Your task to perform on an android device: Go to CNN.com Image 0: 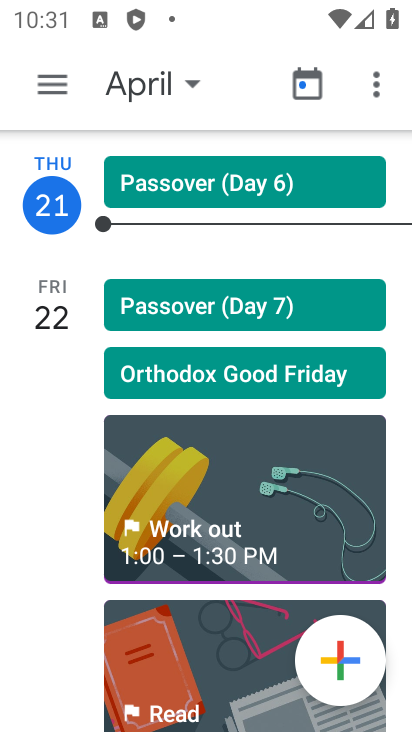
Step 0: press home button
Your task to perform on an android device: Go to CNN.com Image 1: 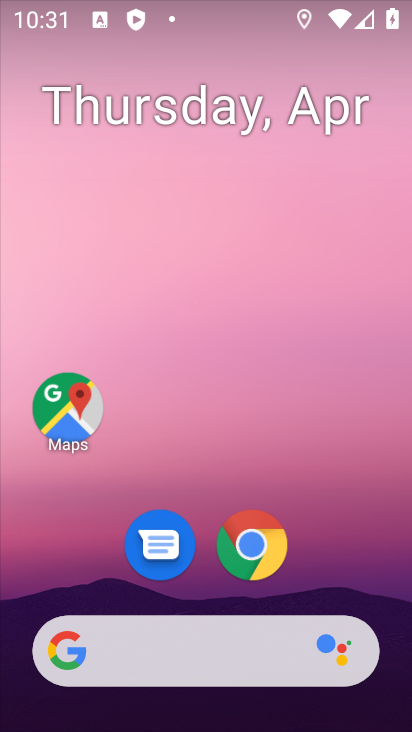
Step 1: click (230, 631)
Your task to perform on an android device: Go to CNN.com Image 2: 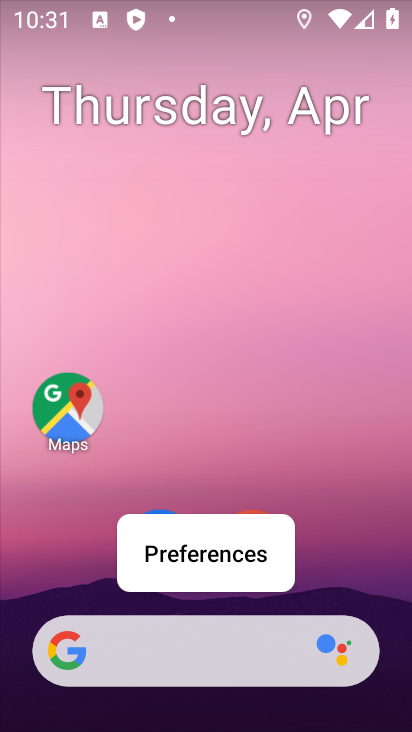
Step 2: click (197, 652)
Your task to perform on an android device: Go to CNN.com Image 3: 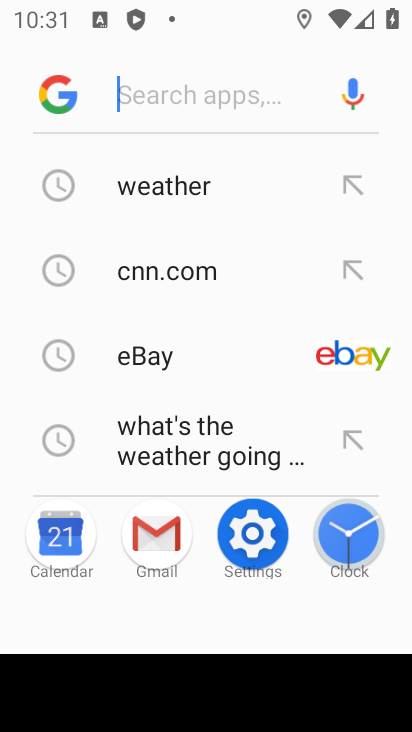
Step 3: click (227, 86)
Your task to perform on an android device: Go to CNN.com Image 4: 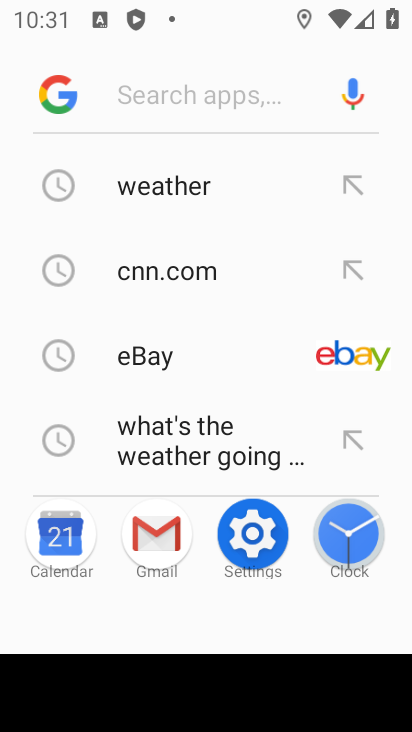
Step 4: type "CNN.com"
Your task to perform on an android device: Go to CNN.com Image 5: 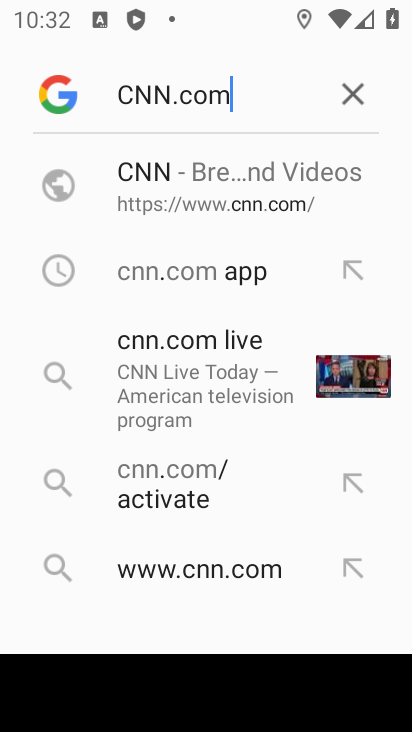
Step 5: type ""
Your task to perform on an android device: Go to CNN.com Image 6: 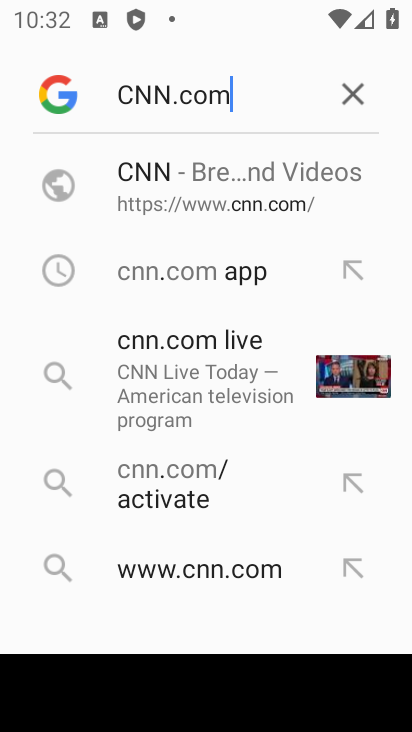
Step 6: click (250, 99)
Your task to perform on an android device: Go to CNN.com Image 7: 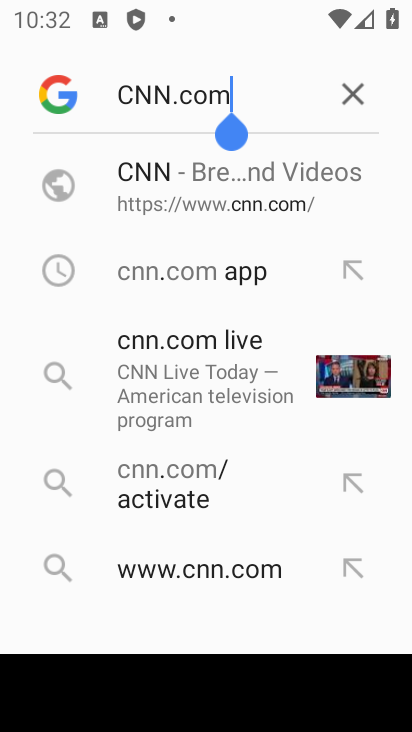
Step 7: click (287, 109)
Your task to perform on an android device: Go to CNN.com Image 8: 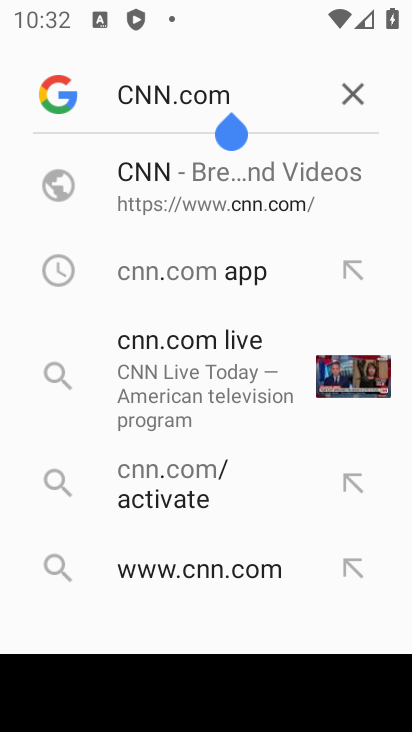
Step 8: task complete